Your task to perform on an android device: empty trash in google photos Image 0: 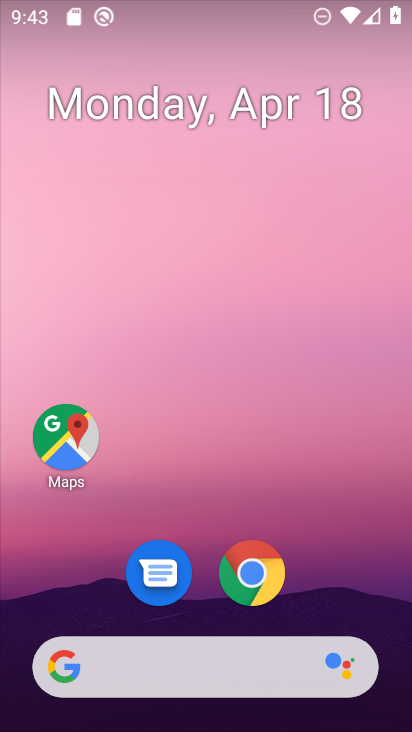
Step 0: drag from (357, 589) to (254, 0)
Your task to perform on an android device: empty trash in google photos Image 1: 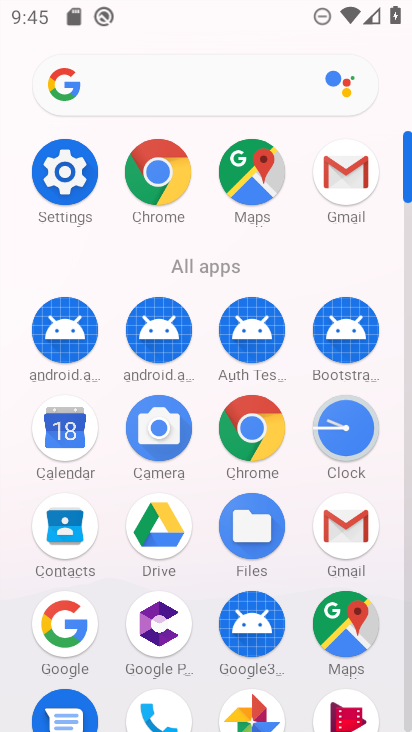
Step 1: drag from (193, 8) to (364, 276)
Your task to perform on an android device: empty trash in google photos Image 2: 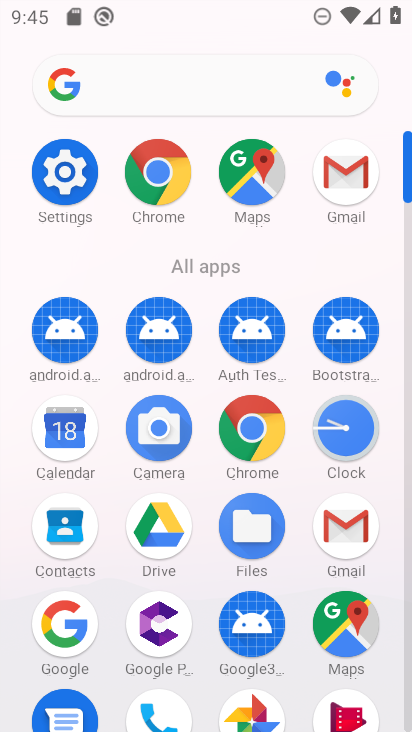
Step 2: click (250, 695)
Your task to perform on an android device: empty trash in google photos Image 3: 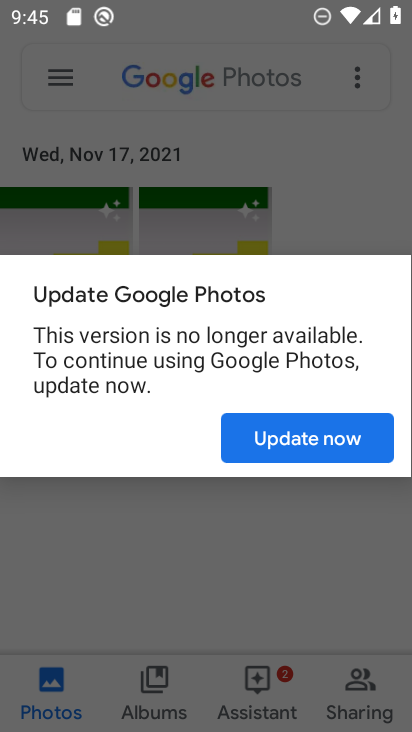
Step 3: click (313, 442)
Your task to perform on an android device: empty trash in google photos Image 4: 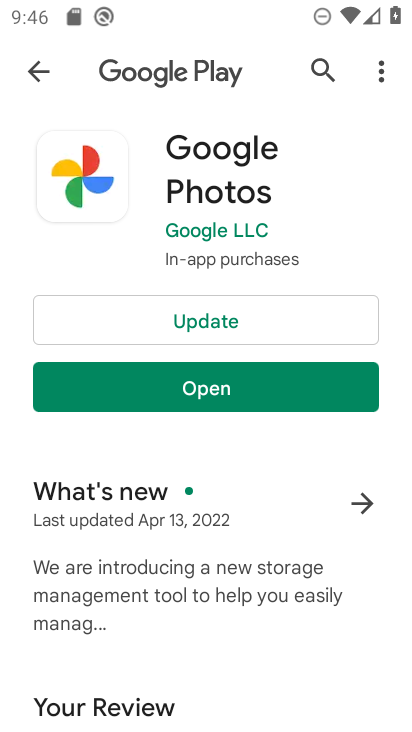
Step 4: click (249, 314)
Your task to perform on an android device: empty trash in google photos Image 5: 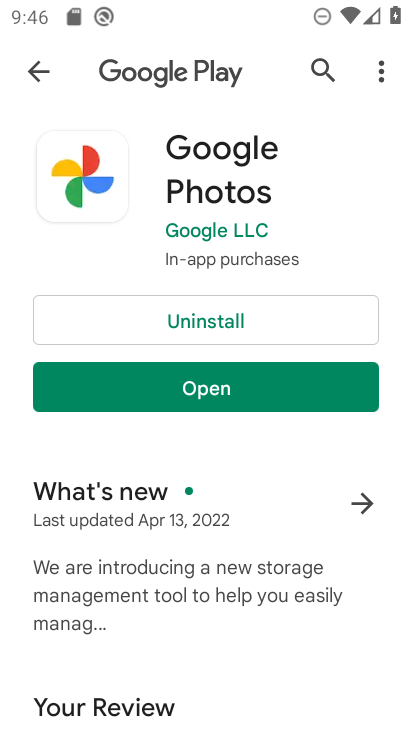
Step 5: click (212, 381)
Your task to perform on an android device: empty trash in google photos Image 6: 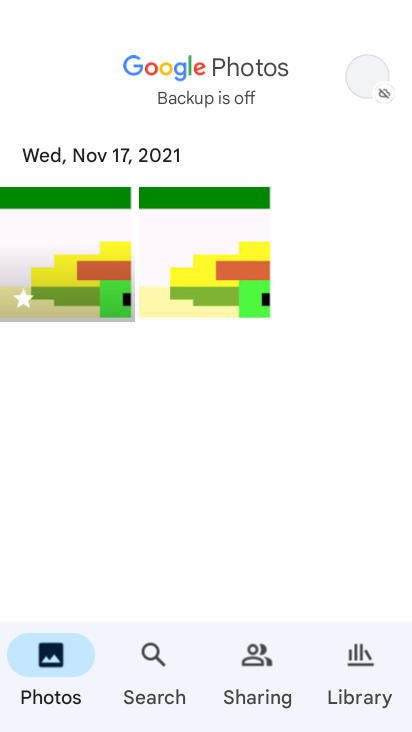
Step 6: click (366, 85)
Your task to perform on an android device: empty trash in google photos Image 7: 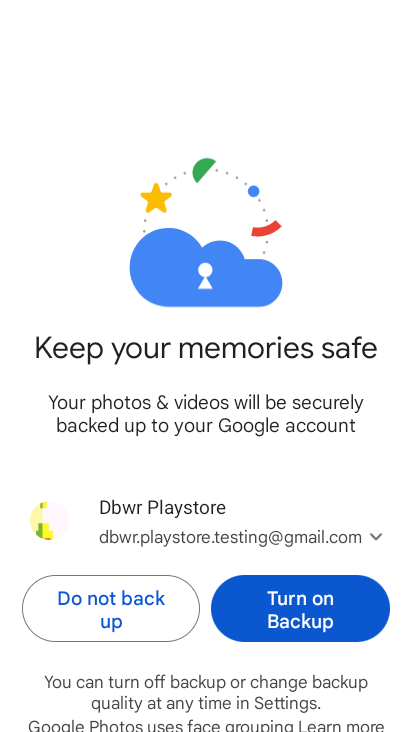
Step 7: click (306, 601)
Your task to perform on an android device: empty trash in google photos Image 8: 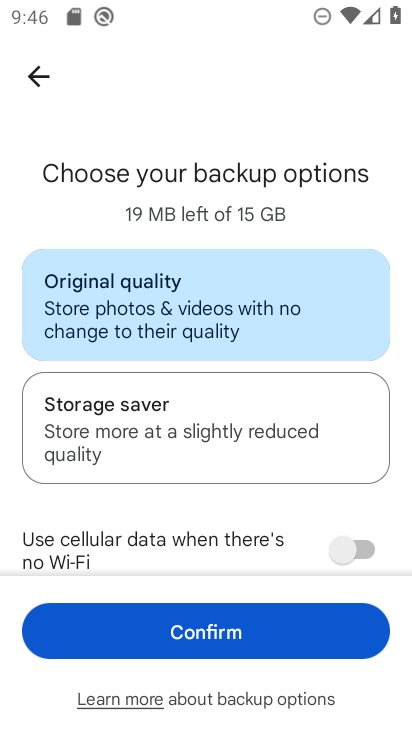
Step 8: click (199, 627)
Your task to perform on an android device: empty trash in google photos Image 9: 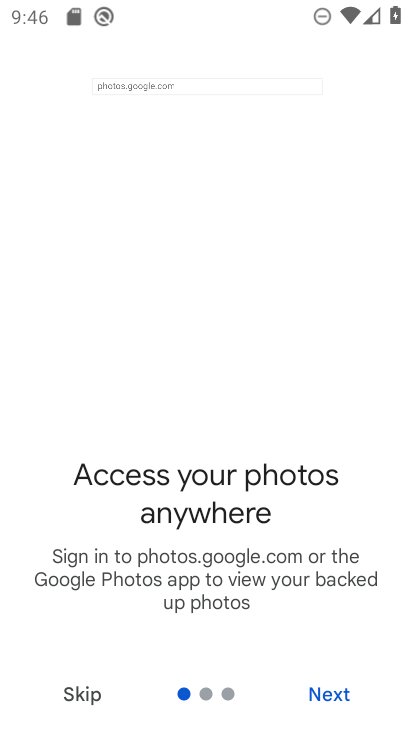
Step 9: click (323, 684)
Your task to perform on an android device: empty trash in google photos Image 10: 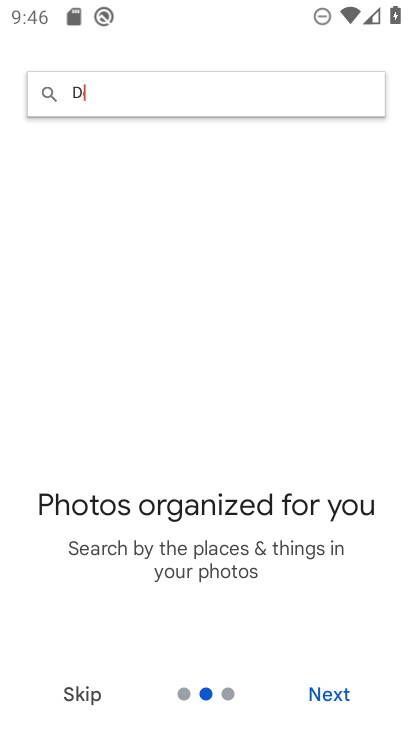
Step 10: click (323, 684)
Your task to perform on an android device: empty trash in google photos Image 11: 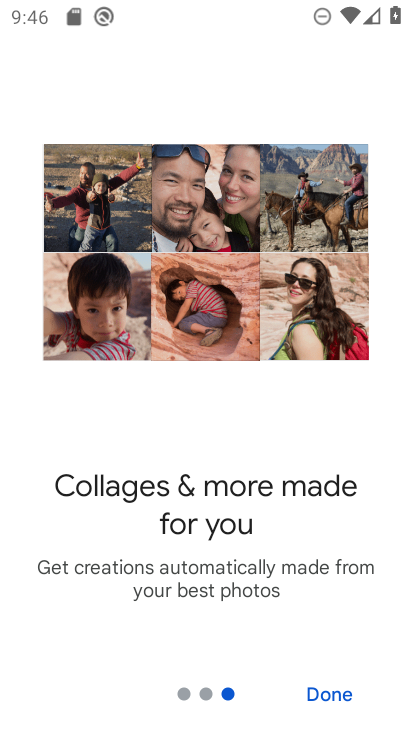
Step 11: click (323, 684)
Your task to perform on an android device: empty trash in google photos Image 12: 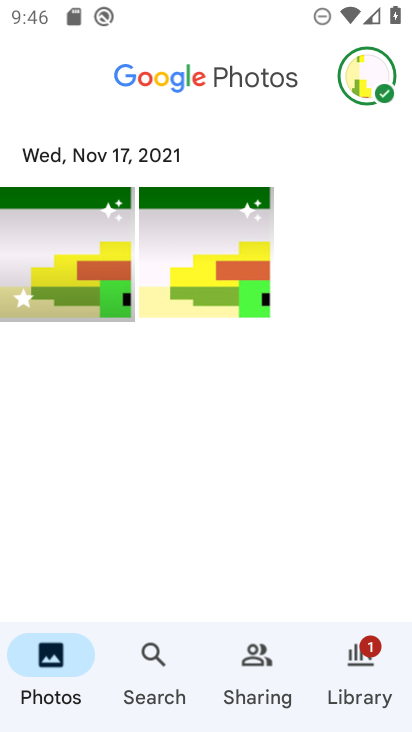
Step 12: click (359, 85)
Your task to perform on an android device: empty trash in google photos Image 13: 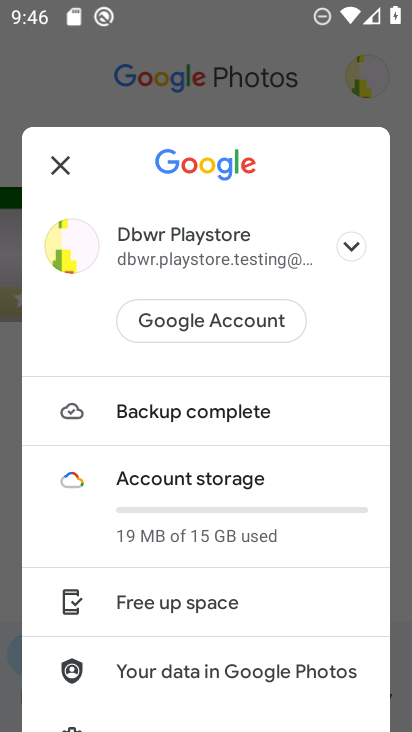
Step 13: drag from (161, 622) to (174, 172)
Your task to perform on an android device: empty trash in google photos Image 14: 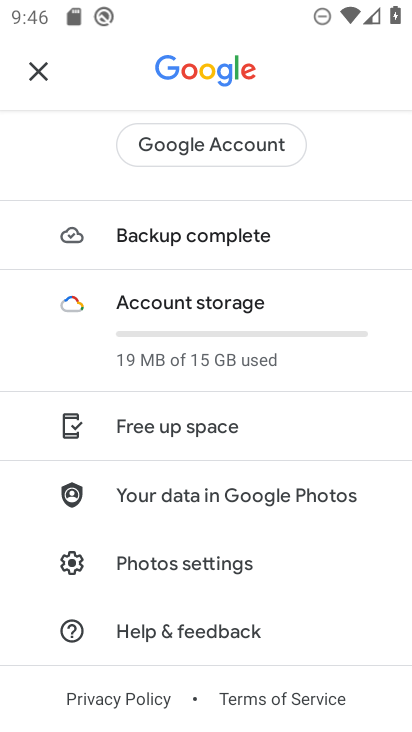
Step 14: press back button
Your task to perform on an android device: empty trash in google photos Image 15: 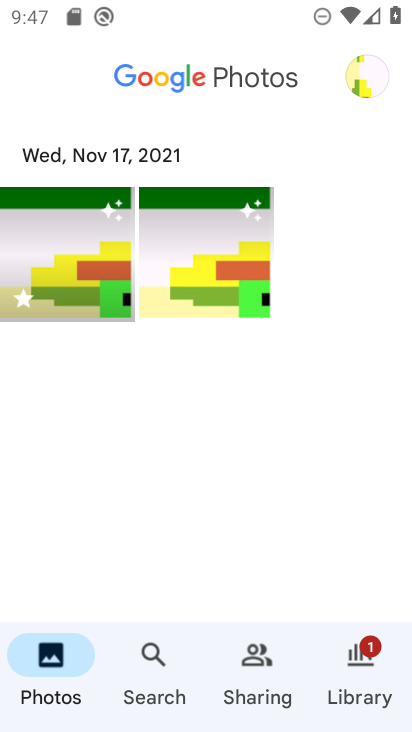
Step 15: click (347, 661)
Your task to perform on an android device: empty trash in google photos Image 16: 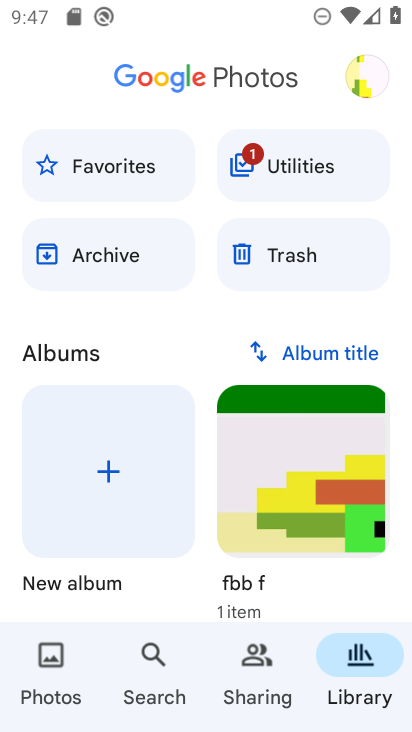
Step 16: click (301, 276)
Your task to perform on an android device: empty trash in google photos Image 17: 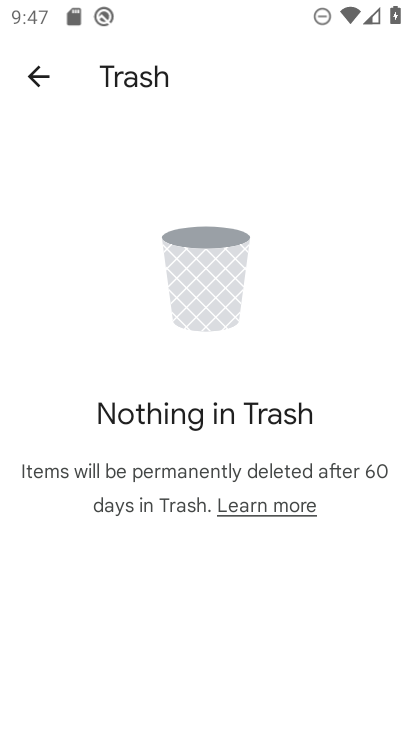
Step 17: task complete